Your task to perform on an android device: see creations saved in the google photos Image 0: 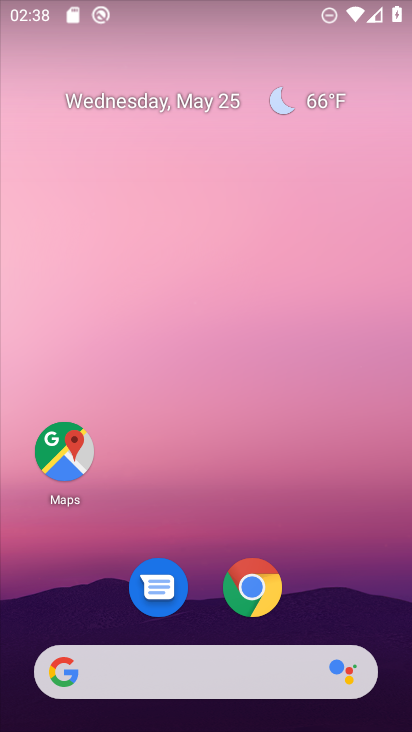
Step 0: drag from (355, 602) to (354, 209)
Your task to perform on an android device: see creations saved in the google photos Image 1: 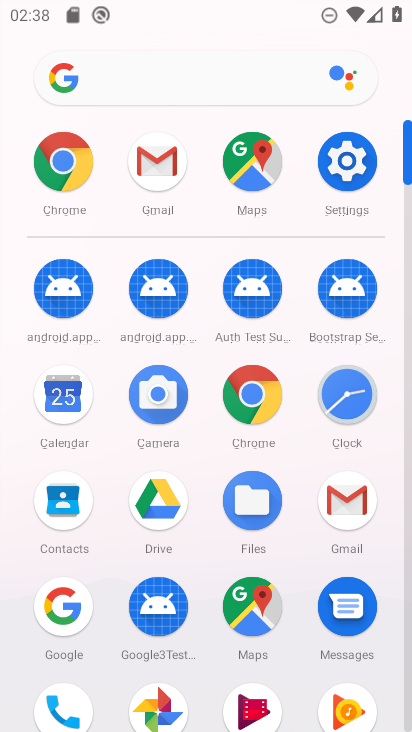
Step 1: drag from (295, 609) to (298, 335)
Your task to perform on an android device: see creations saved in the google photos Image 2: 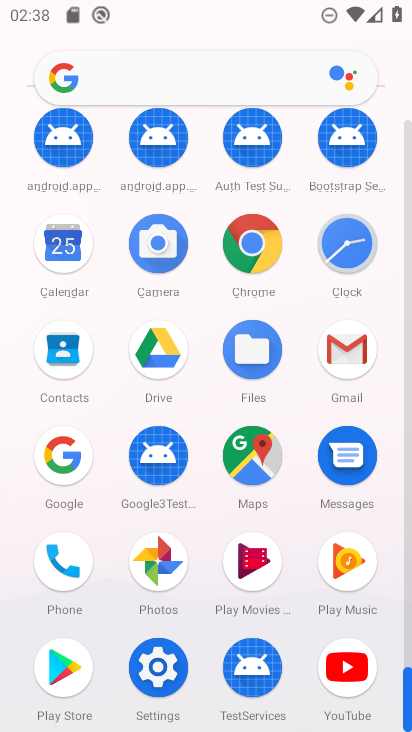
Step 2: click (147, 558)
Your task to perform on an android device: see creations saved in the google photos Image 3: 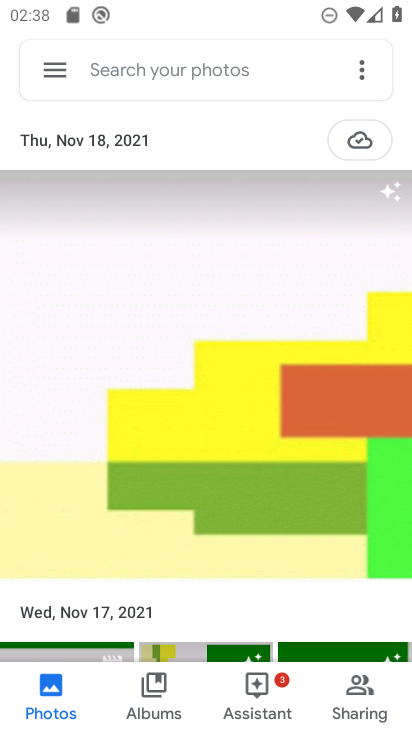
Step 3: click (178, 60)
Your task to perform on an android device: see creations saved in the google photos Image 4: 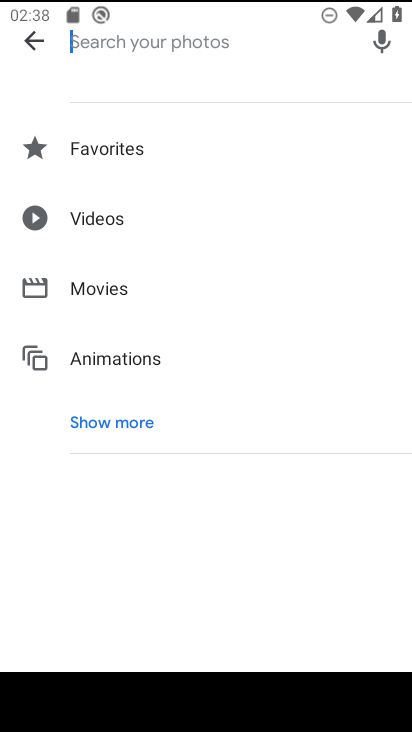
Step 4: click (147, 429)
Your task to perform on an android device: see creations saved in the google photos Image 5: 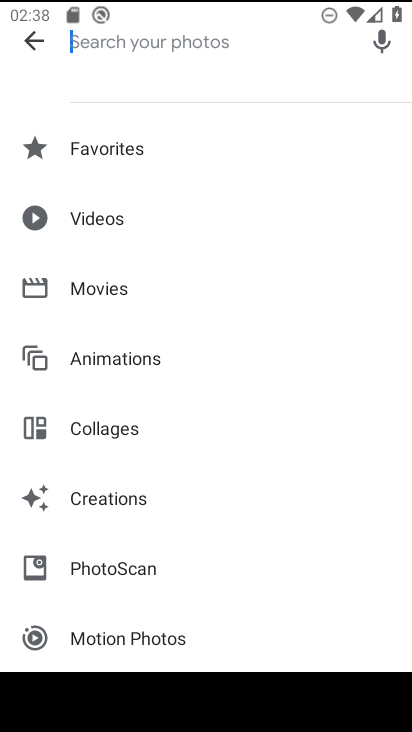
Step 5: drag from (233, 561) to (227, 444)
Your task to perform on an android device: see creations saved in the google photos Image 6: 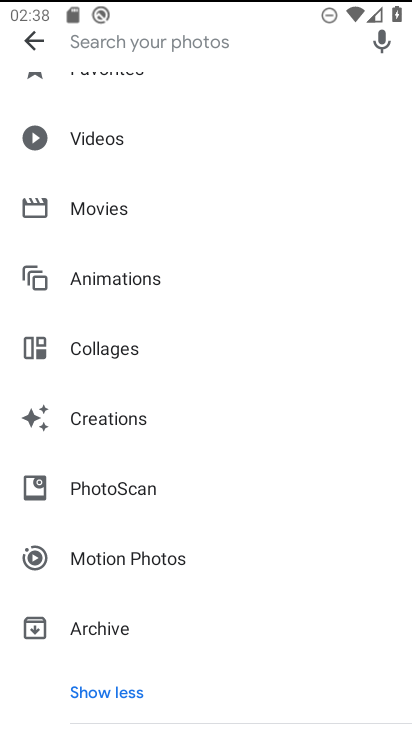
Step 6: drag from (242, 615) to (239, 484)
Your task to perform on an android device: see creations saved in the google photos Image 7: 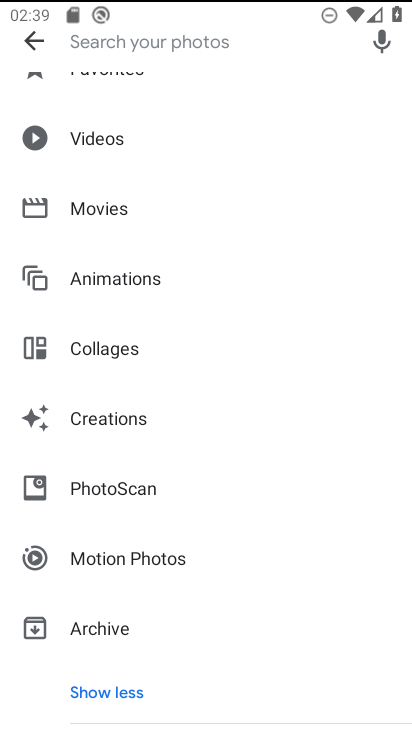
Step 7: click (151, 434)
Your task to perform on an android device: see creations saved in the google photos Image 8: 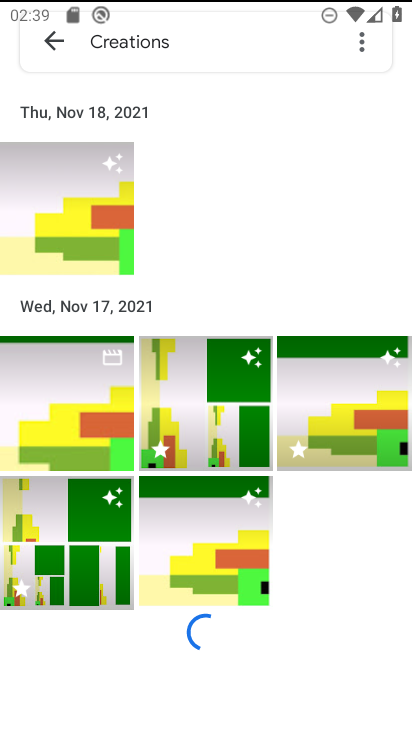
Step 8: task complete